Your task to perform on an android device: search for starred emails in the gmail app Image 0: 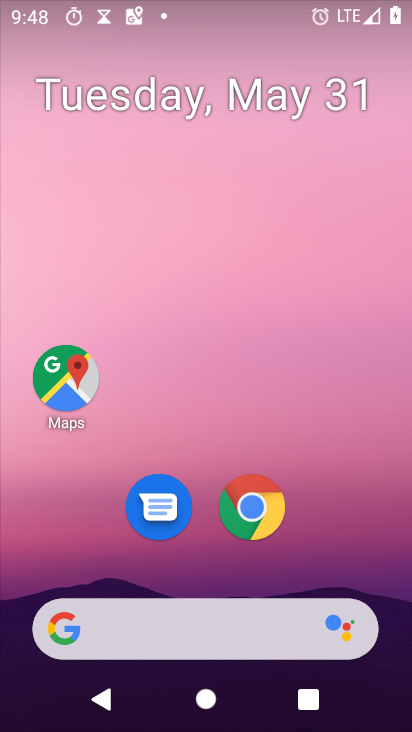
Step 0: drag from (14, 398) to (166, 83)
Your task to perform on an android device: search for starred emails in the gmail app Image 1: 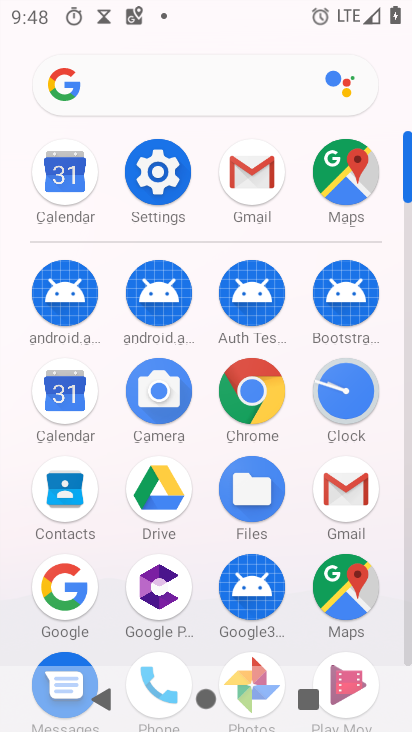
Step 1: click (250, 181)
Your task to perform on an android device: search for starred emails in the gmail app Image 2: 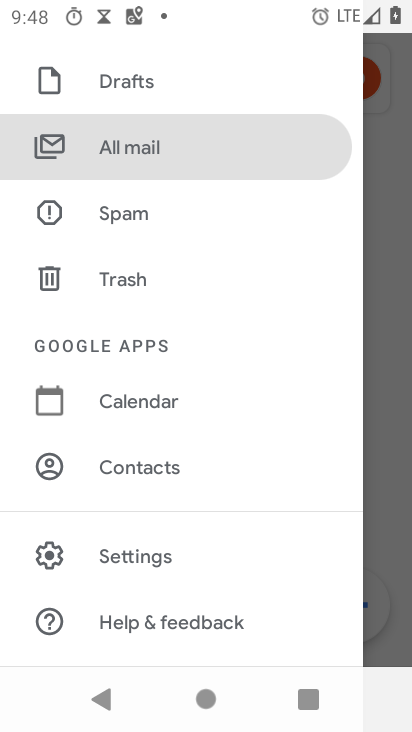
Step 2: drag from (60, 271) to (22, 579)
Your task to perform on an android device: search for starred emails in the gmail app Image 3: 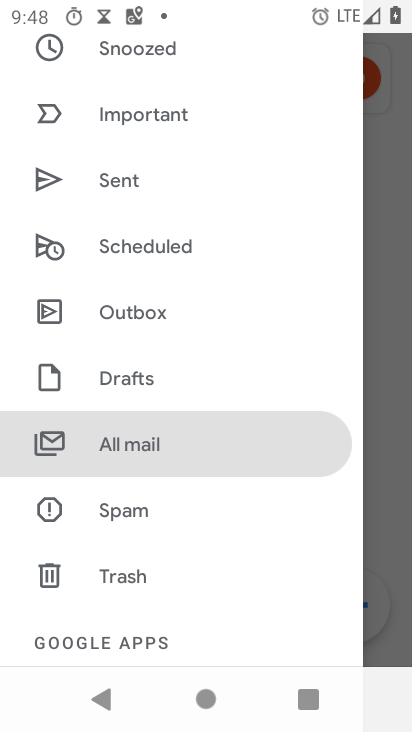
Step 3: drag from (111, 130) to (30, 506)
Your task to perform on an android device: search for starred emails in the gmail app Image 4: 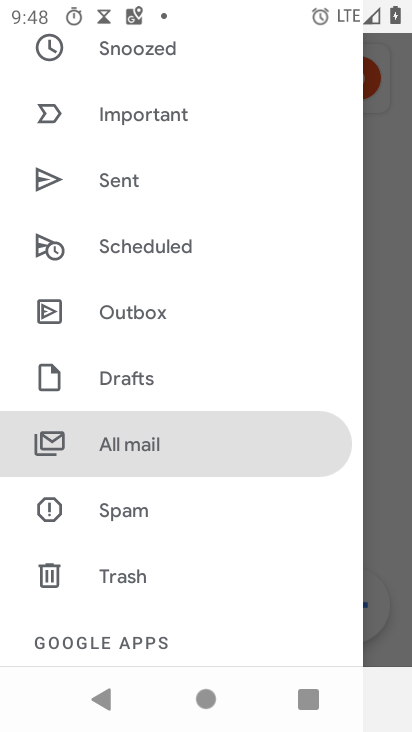
Step 4: drag from (17, 199) to (0, 435)
Your task to perform on an android device: search for starred emails in the gmail app Image 5: 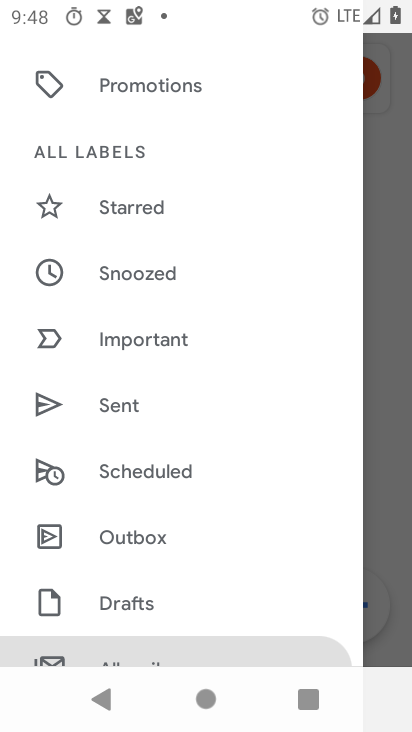
Step 5: click (149, 202)
Your task to perform on an android device: search for starred emails in the gmail app Image 6: 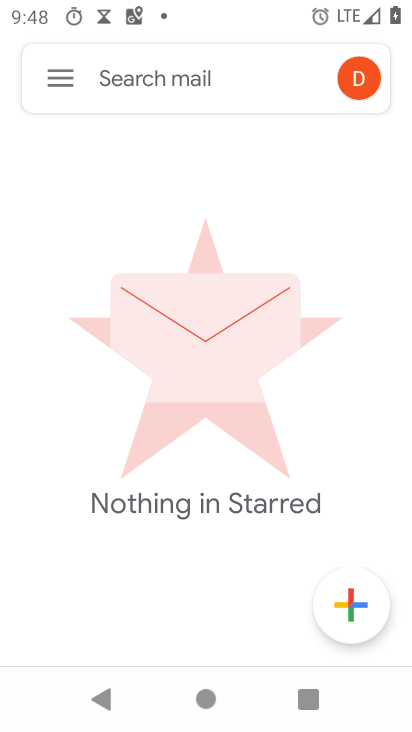
Step 6: task complete